Your task to perform on an android device: open chrome privacy settings Image 0: 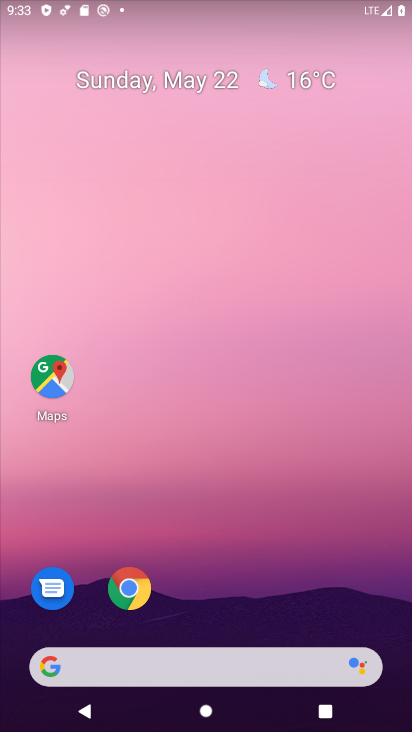
Step 0: click (125, 589)
Your task to perform on an android device: open chrome privacy settings Image 1: 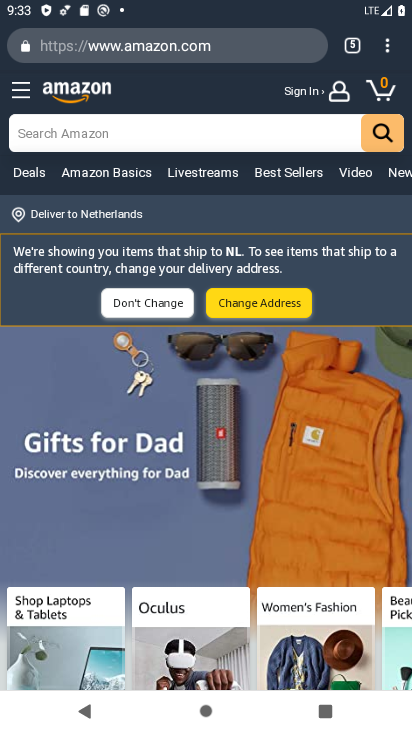
Step 1: click (381, 42)
Your task to perform on an android device: open chrome privacy settings Image 2: 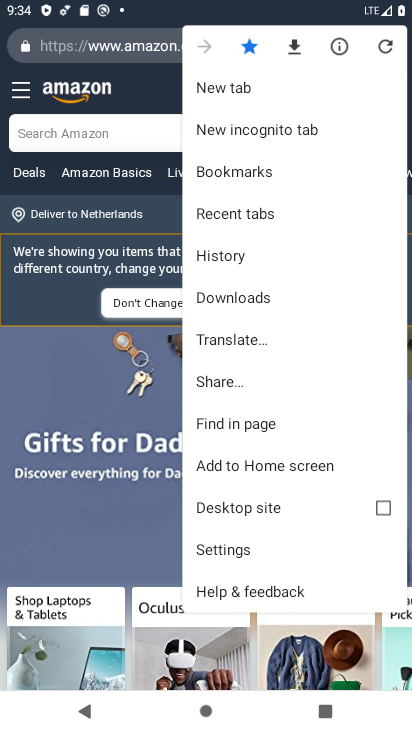
Step 2: click (252, 547)
Your task to perform on an android device: open chrome privacy settings Image 3: 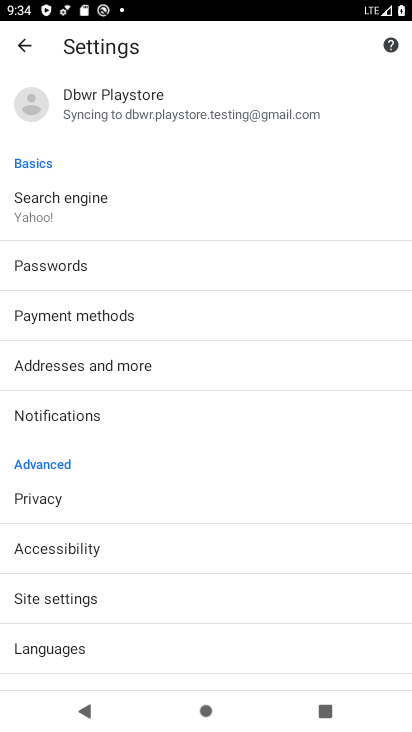
Step 3: click (103, 491)
Your task to perform on an android device: open chrome privacy settings Image 4: 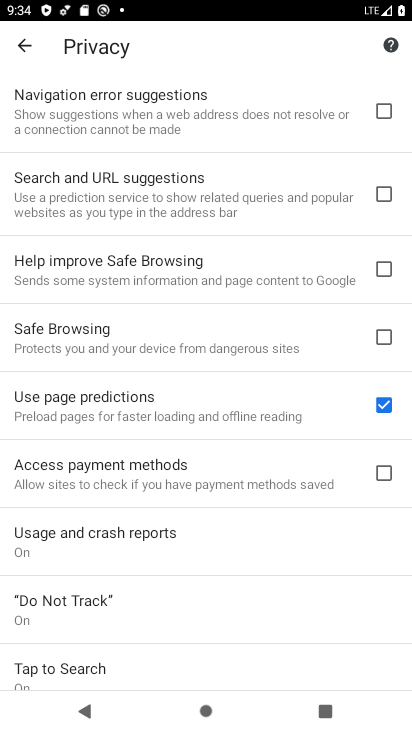
Step 4: task complete